Your task to perform on an android device: Show me popular games on the Play Store Image 0: 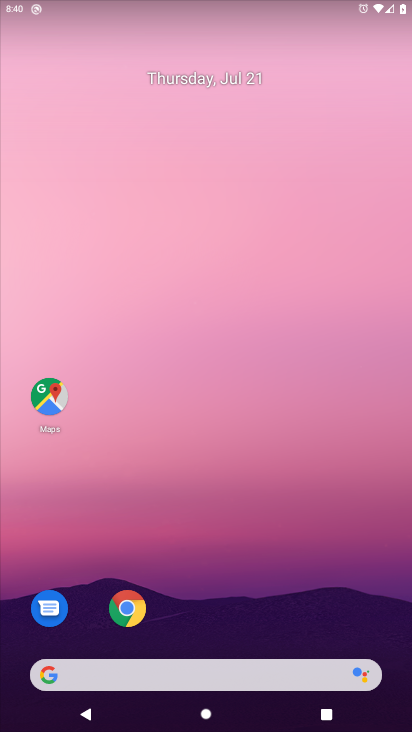
Step 0: drag from (25, 708) to (207, 42)
Your task to perform on an android device: Show me popular games on the Play Store Image 1: 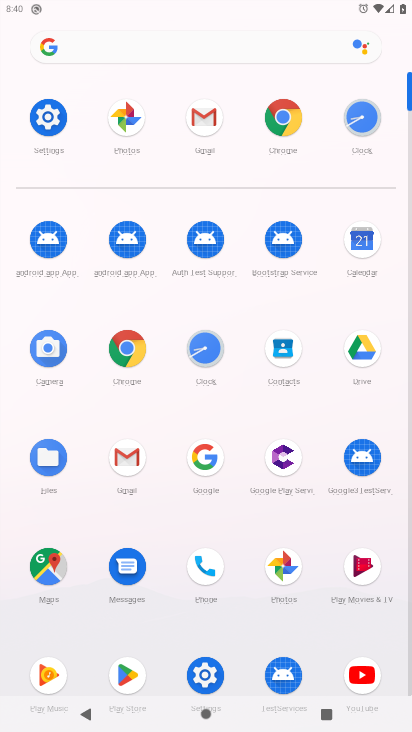
Step 1: click (133, 676)
Your task to perform on an android device: Show me popular games on the Play Store Image 2: 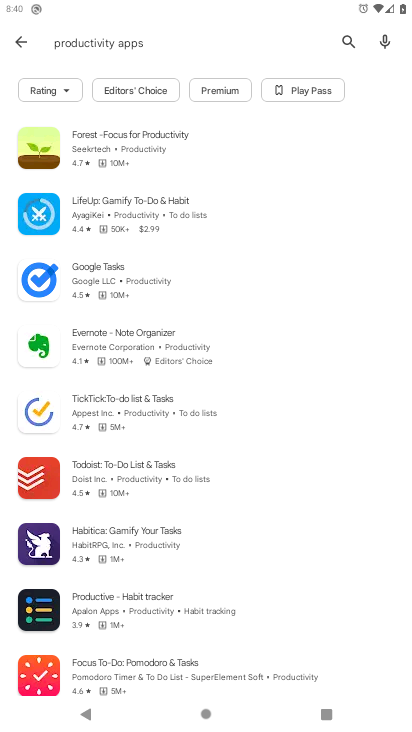
Step 2: click (12, 38)
Your task to perform on an android device: Show me popular games on the Play Store Image 3: 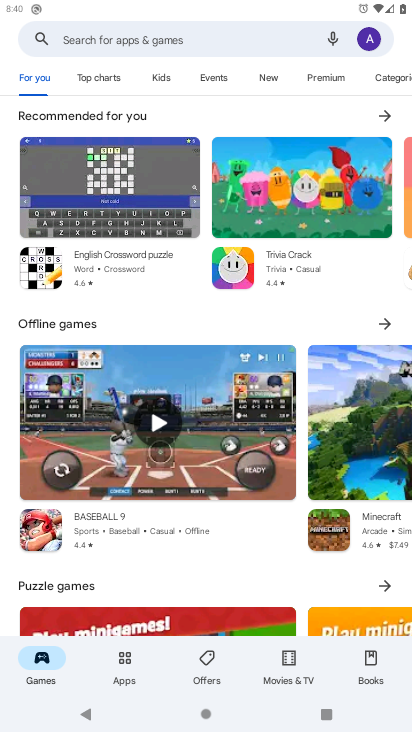
Step 3: click (144, 36)
Your task to perform on an android device: Show me popular games on the Play Store Image 4: 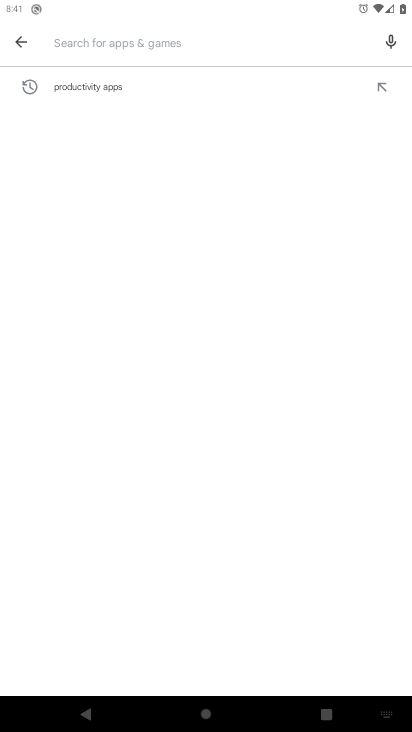
Step 4: type "popular games"
Your task to perform on an android device: Show me popular games on the Play Store Image 5: 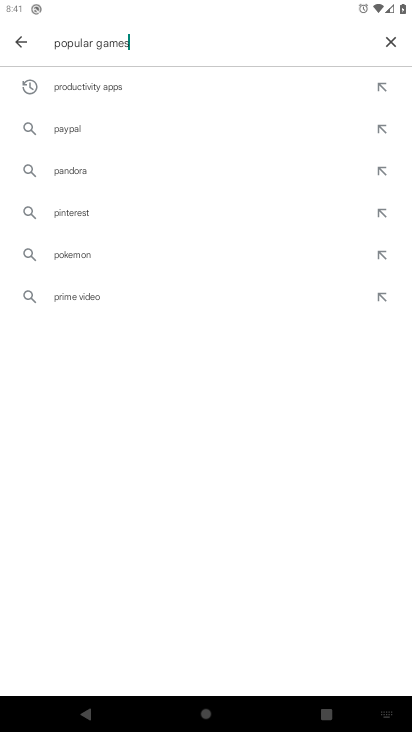
Step 5: type ""
Your task to perform on an android device: Show me popular games on the Play Store Image 6: 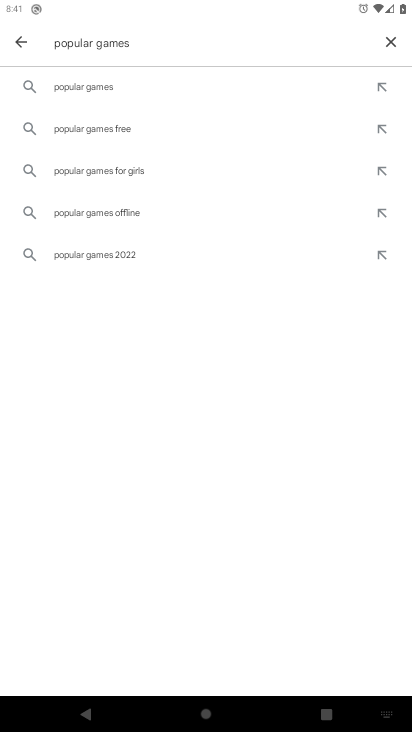
Step 6: click (81, 75)
Your task to perform on an android device: Show me popular games on the Play Store Image 7: 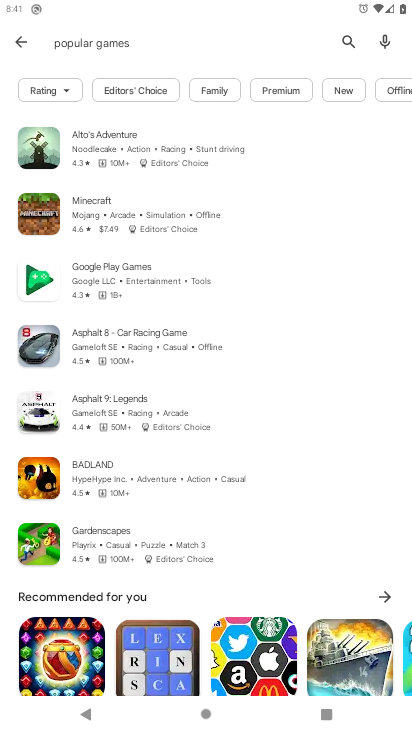
Step 7: task complete